Your task to perform on an android device: turn off notifications in google photos Image 0: 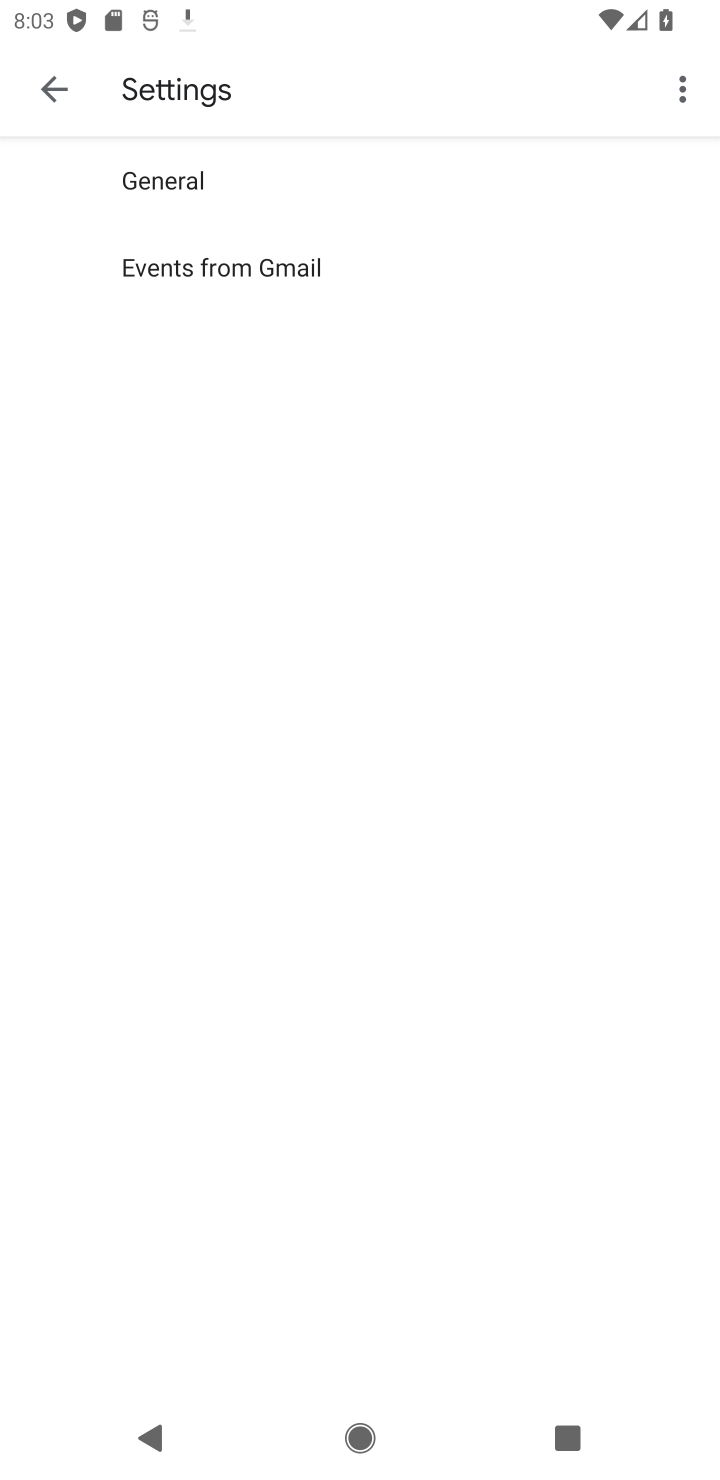
Step 0: press home button
Your task to perform on an android device: turn off notifications in google photos Image 1: 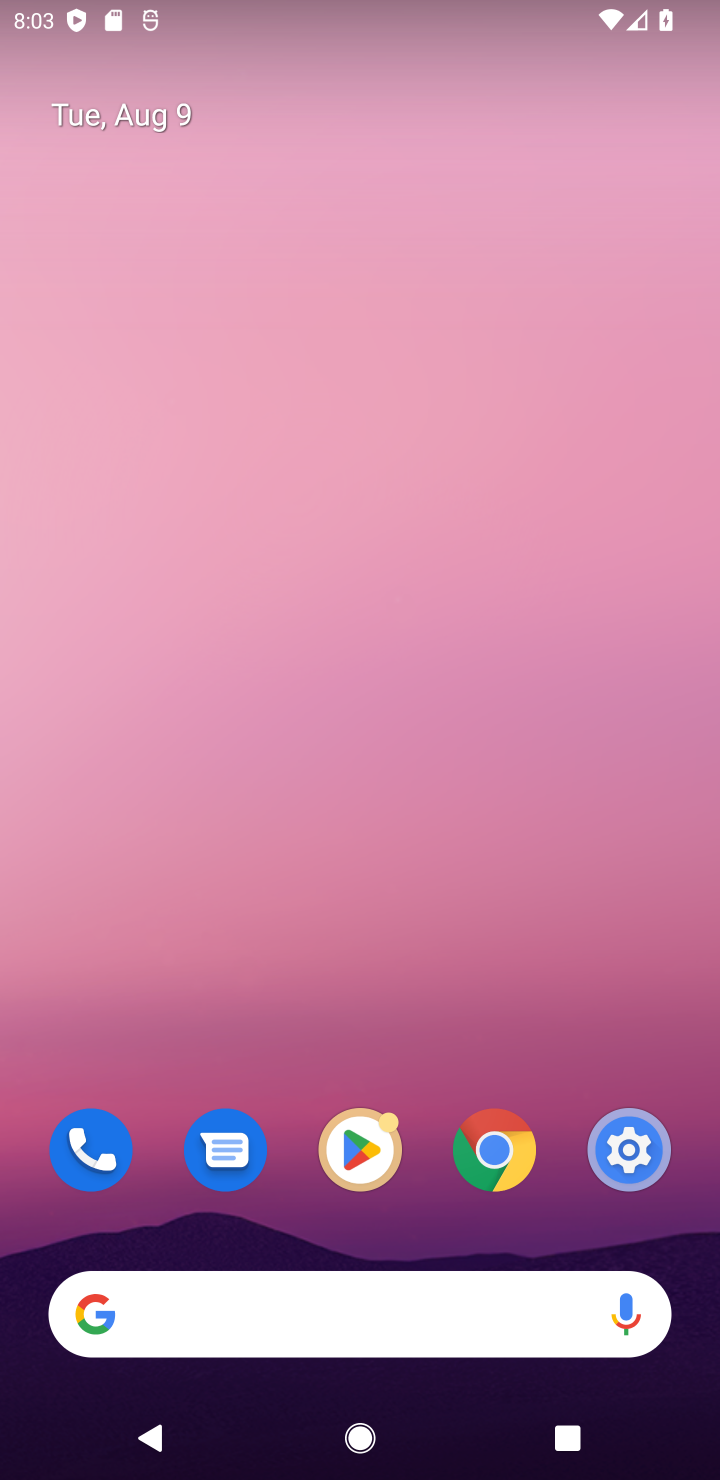
Step 1: drag from (462, 942) to (579, 251)
Your task to perform on an android device: turn off notifications in google photos Image 2: 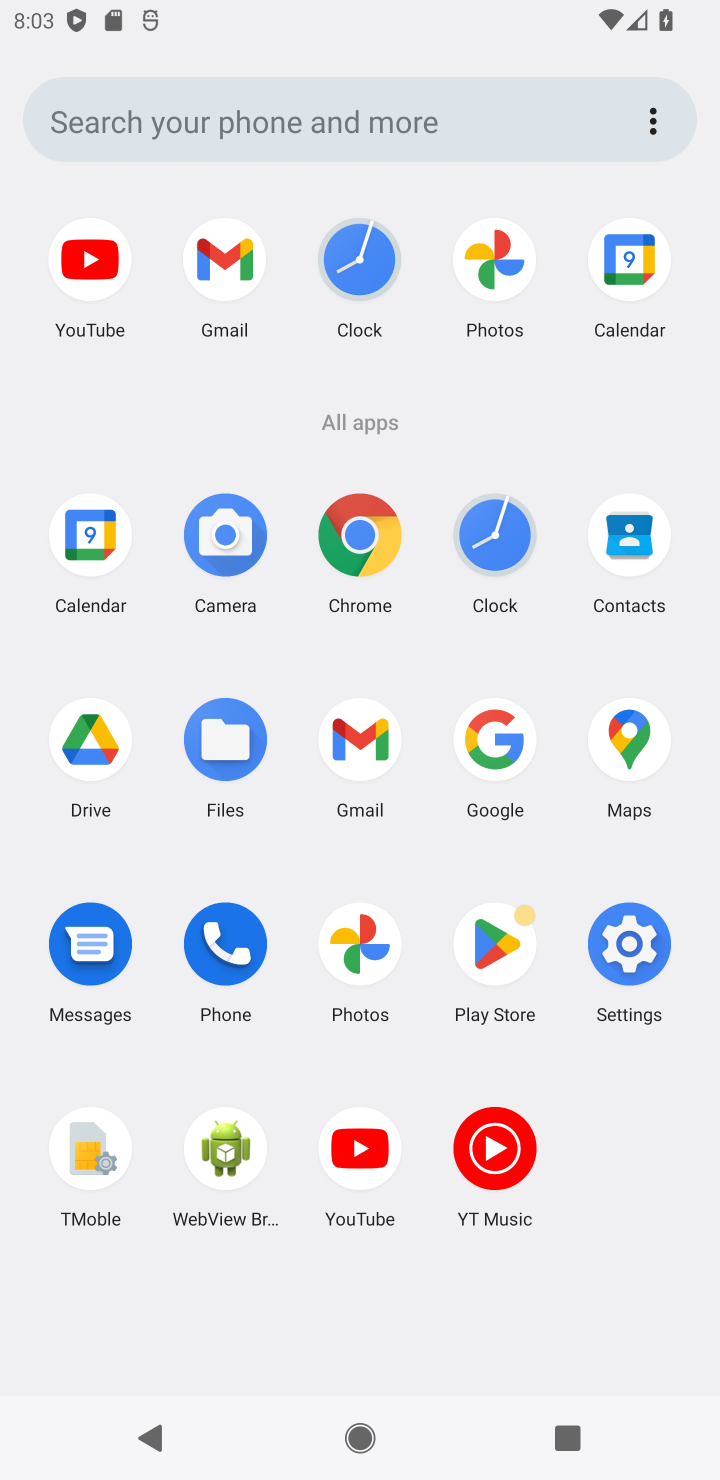
Step 2: click (356, 953)
Your task to perform on an android device: turn off notifications in google photos Image 3: 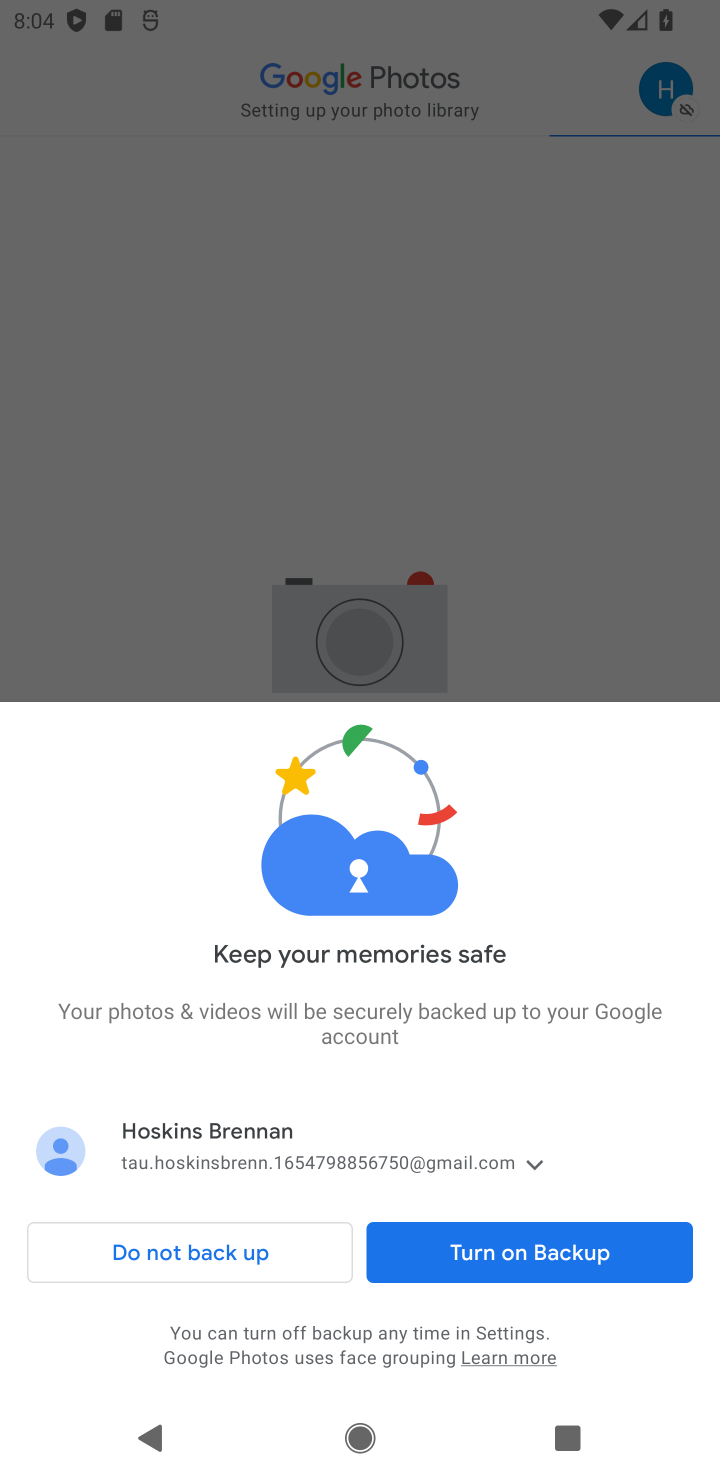
Step 3: click (536, 1249)
Your task to perform on an android device: turn off notifications in google photos Image 4: 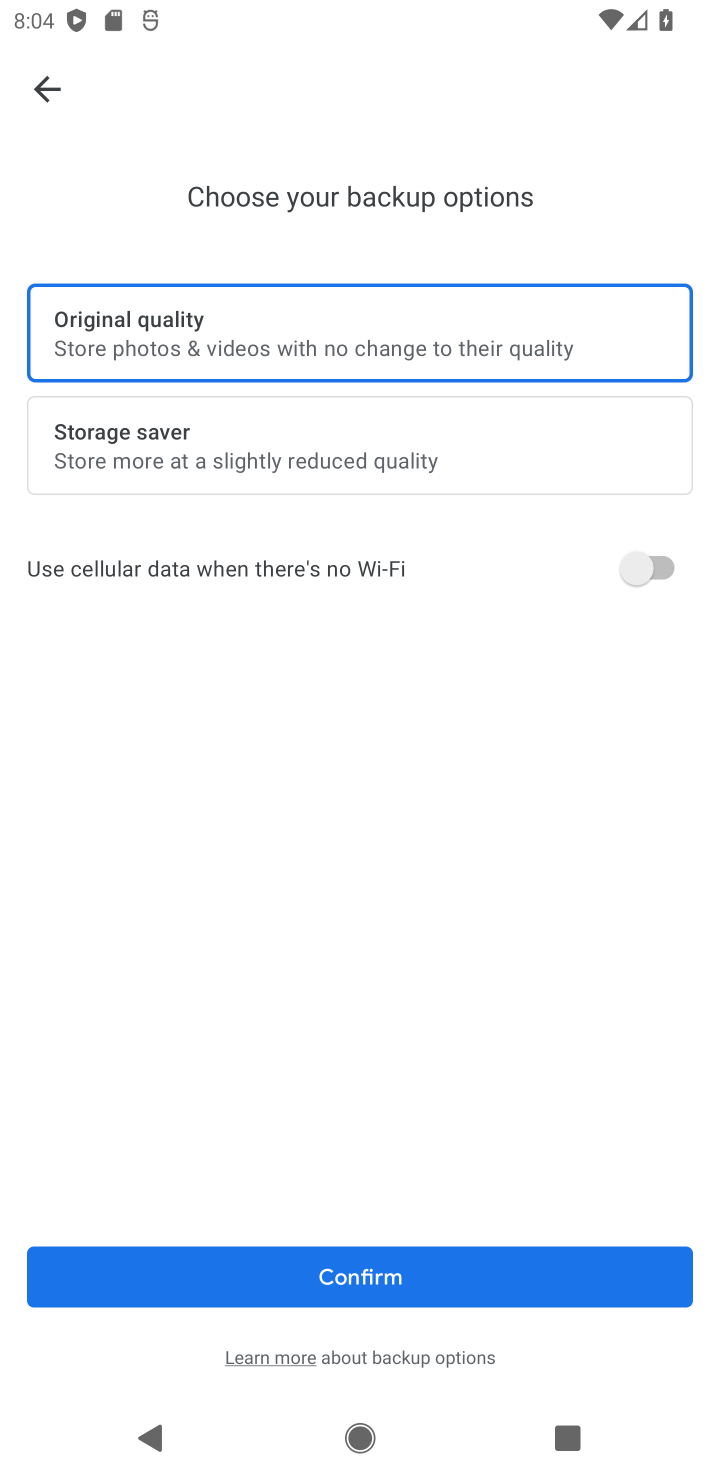
Step 4: click (391, 1274)
Your task to perform on an android device: turn off notifications in google photos Image 5: 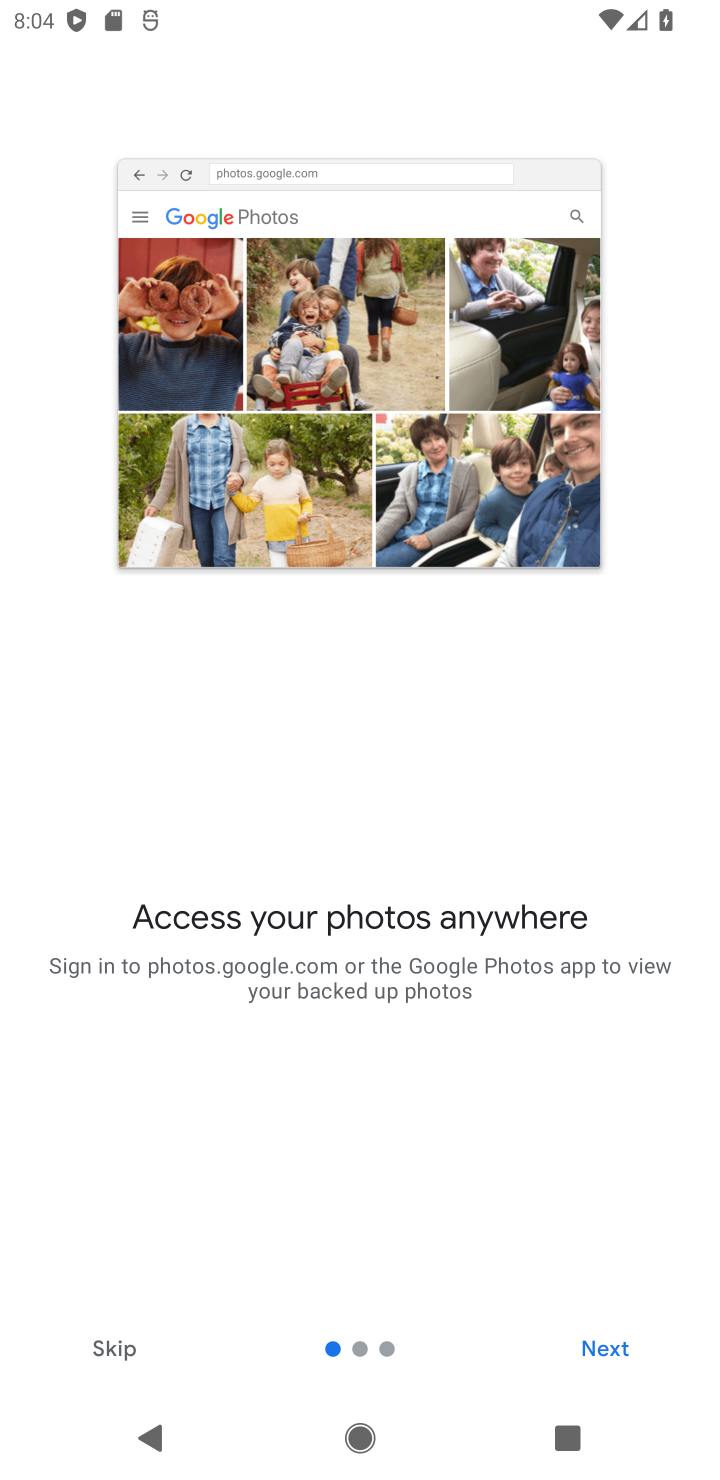
Step 5: click (611, 1344)
Your task to perform on an android device: turn off notifications in google photos Image 6: 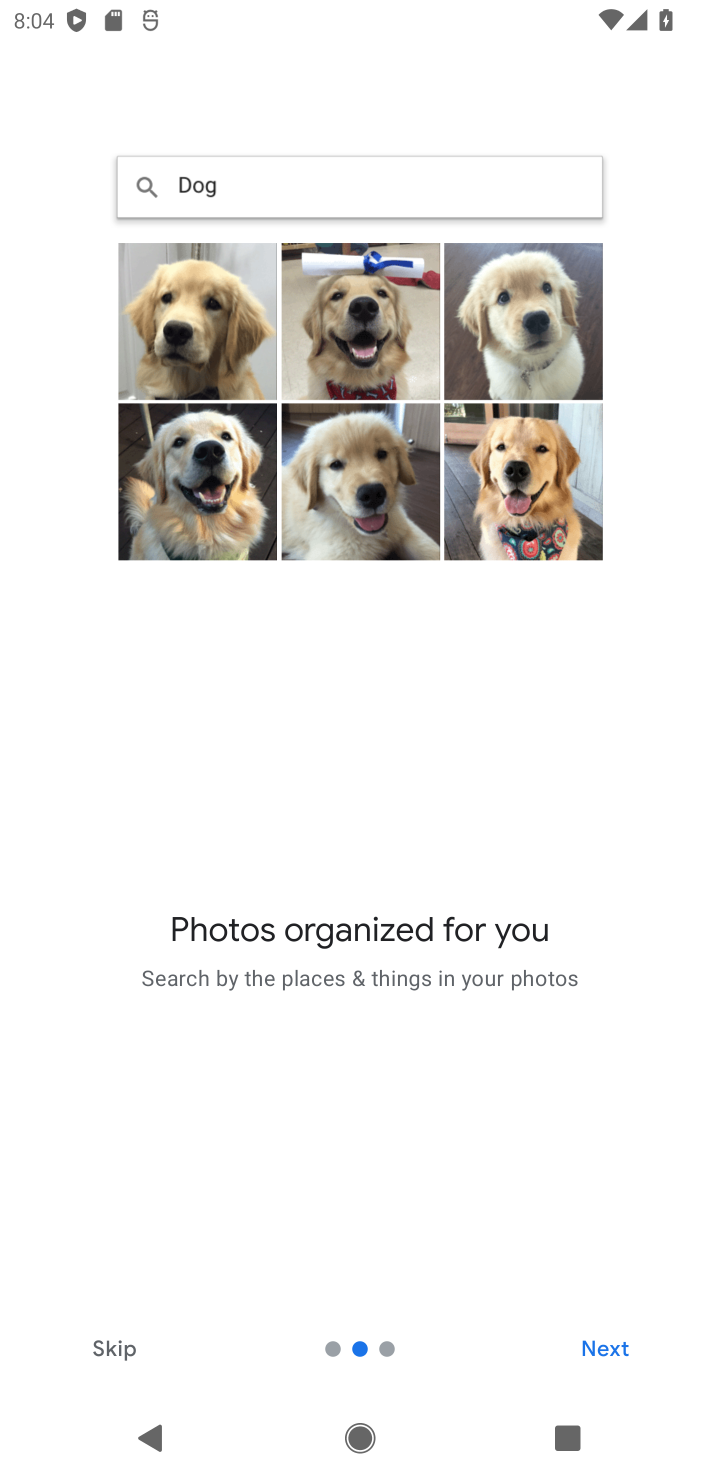
Step 6: click (611, 1344)
Your task to perform on an android device: turn off notifications in google photos Image 7: 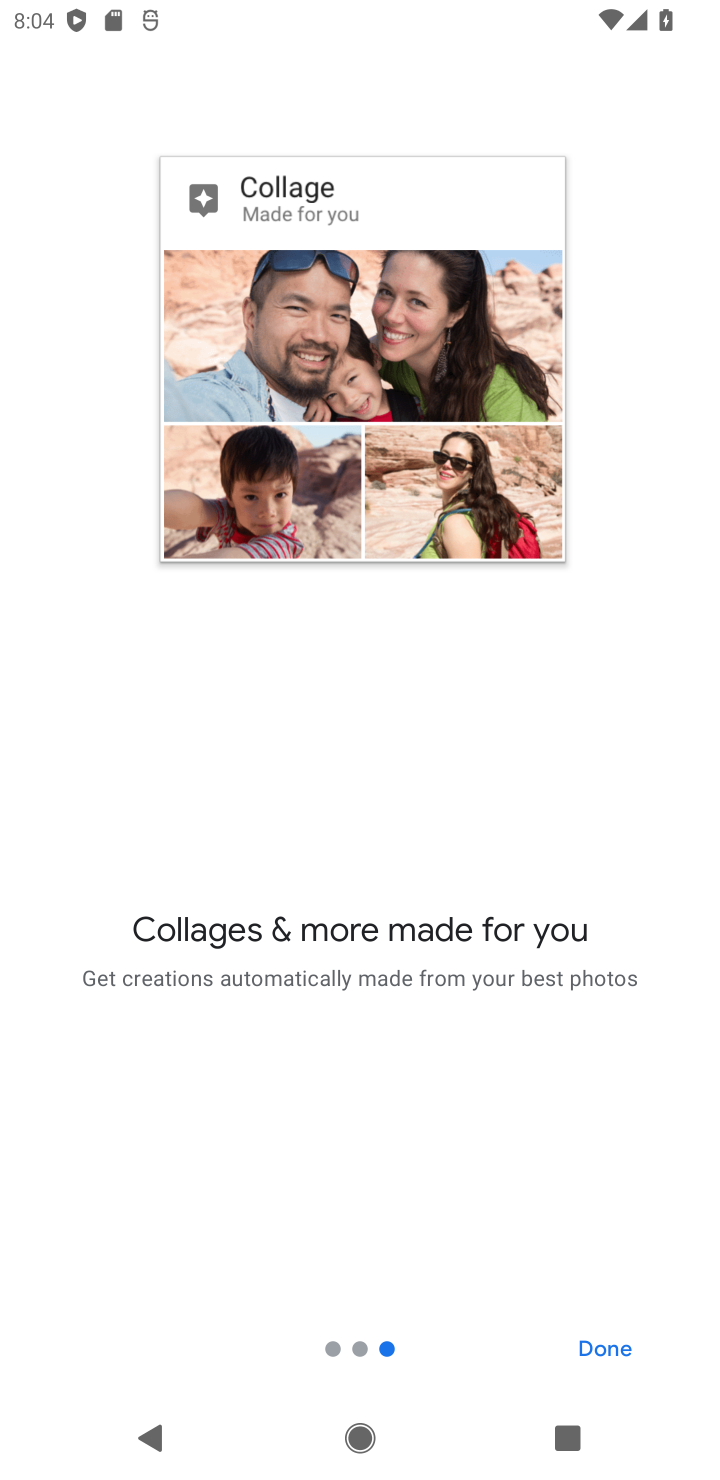
Step 7: click (611, 1344)
Your task to perform on an android device: turn off notifications in google photos Image 8: 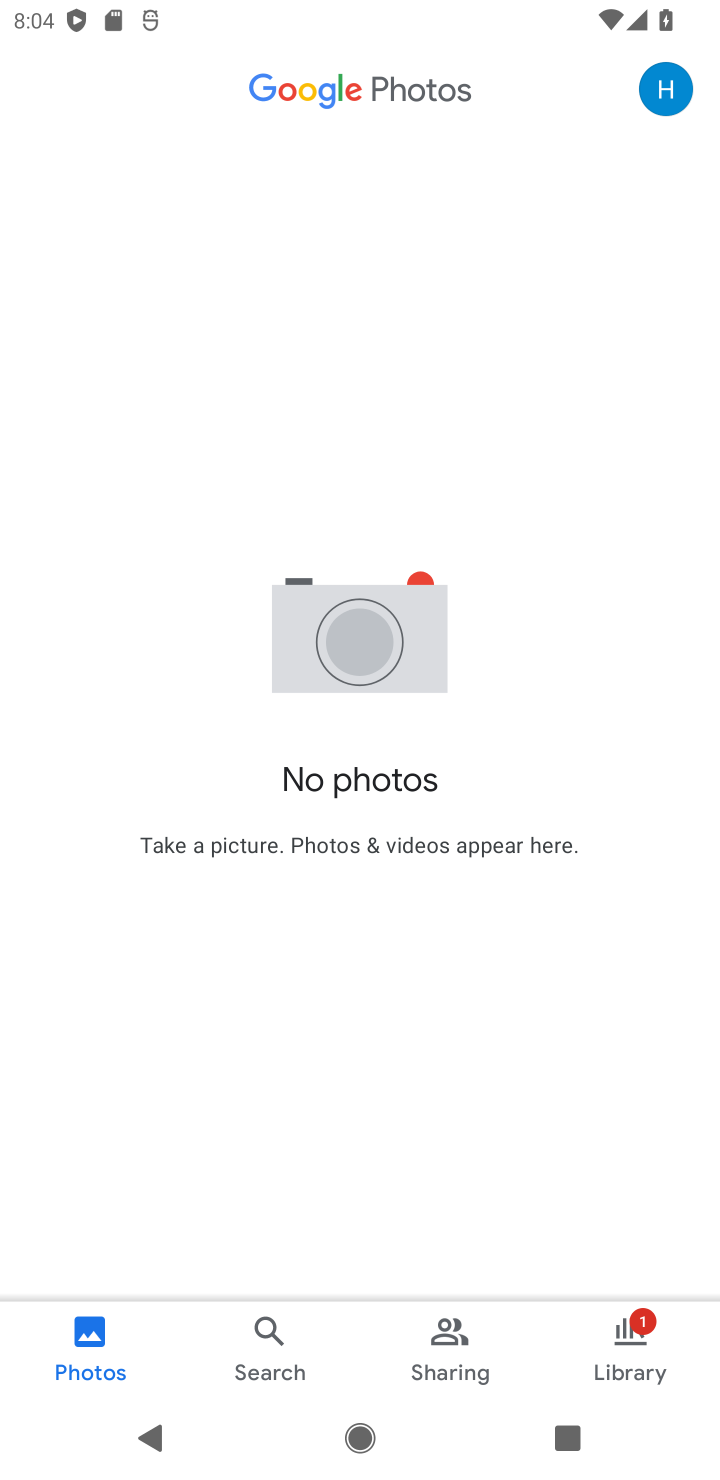
Step 8: click (666, 91)
Your task to perform on an android device: turn off notifications in google photos Image 9: 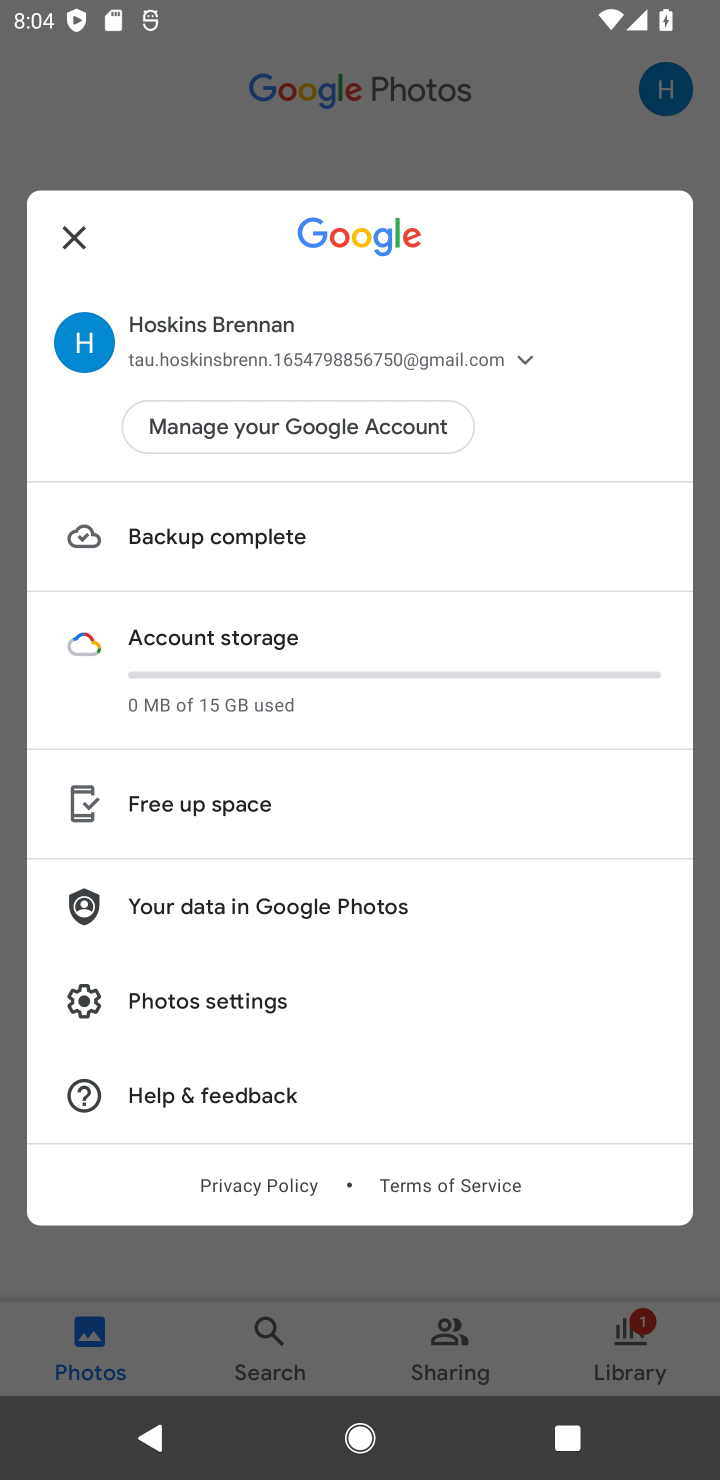
Step 9: click (243, 998)
Your task to perform on an android device: turn off notifications in google photos Image 10: 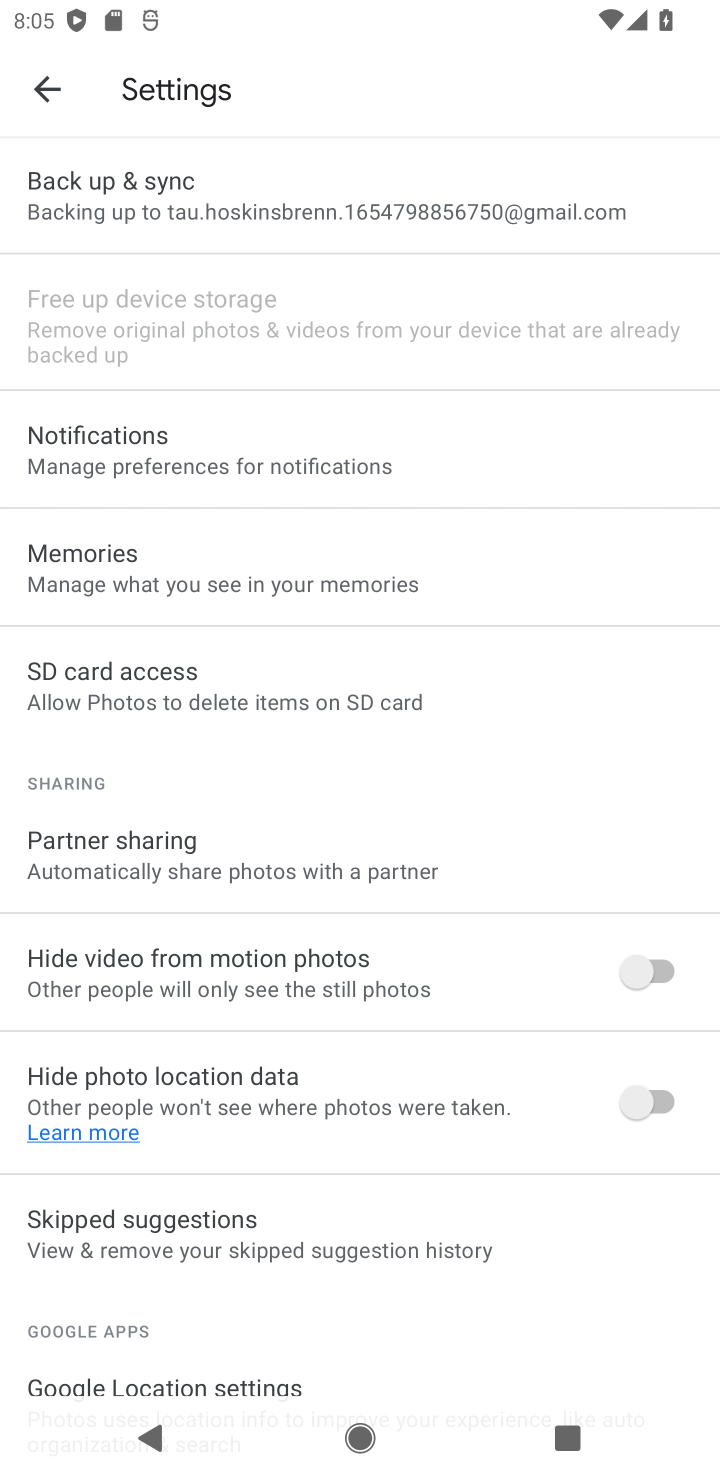
Step 10: click (195, 447)
Your task to perform on an android device: turn off notifications in google photos Image 11: 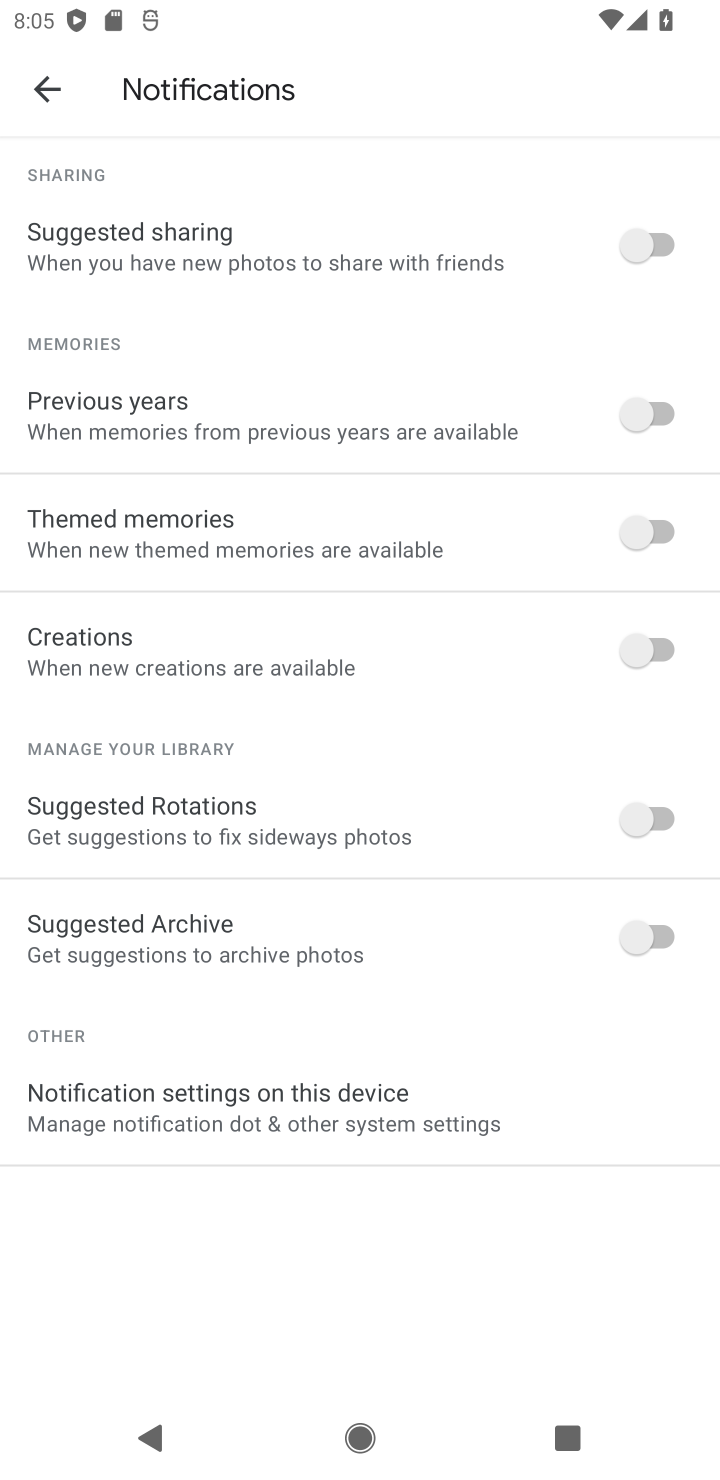
Step 11: click (135, 1110)
Your task to perform on an android device: turn off notifications in google photos Image 12: 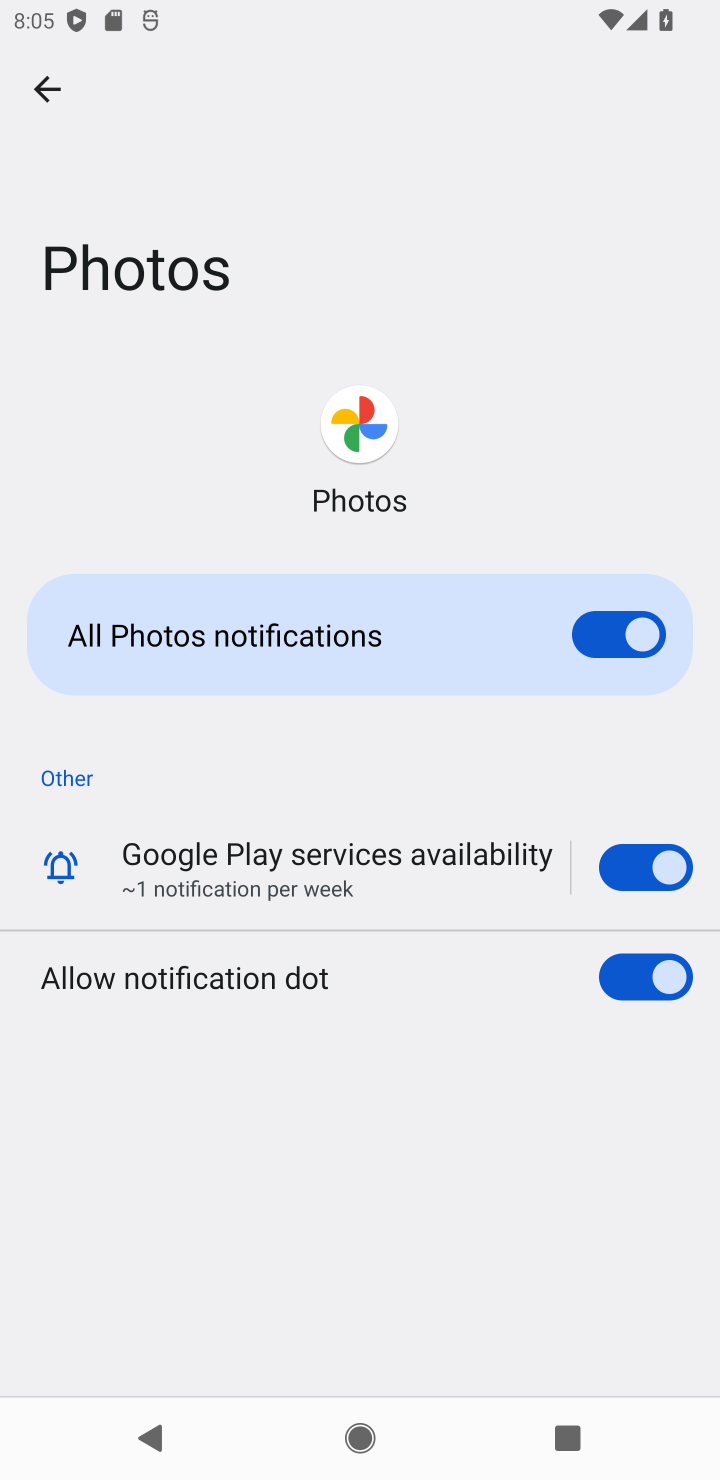
Step 12: click (588, 616)
Your task to perform on an android device: turn off notifications in google photos Image 13: 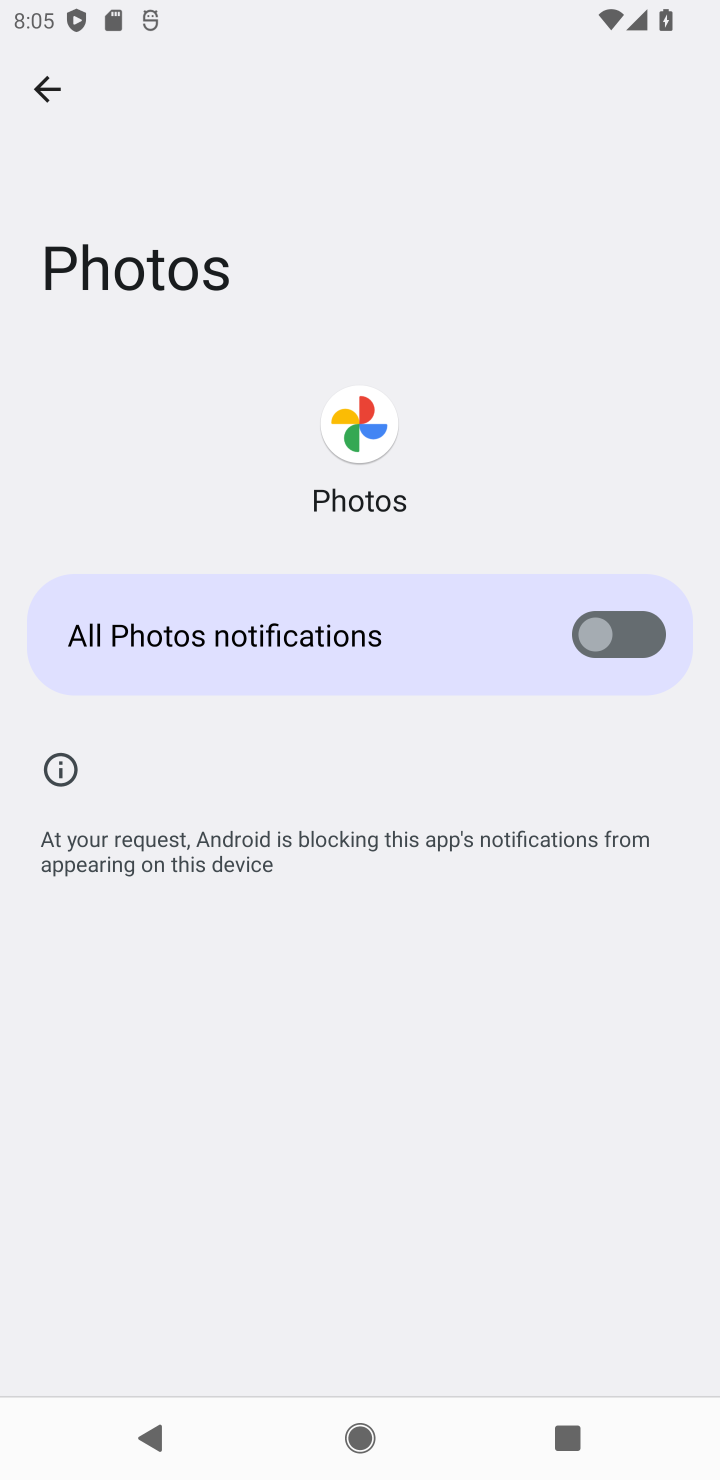
Step 13: task complete